Your task to perform on an android device: Show me popular games on the Play Store Image 0: 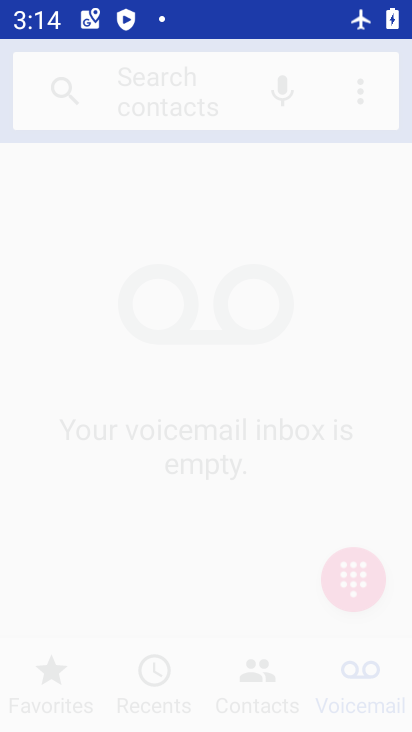
Step 0: drag from (257, 567) to (274, 227)
Your task to perform on an android device: Show me popular games on the Play Store Image 1: 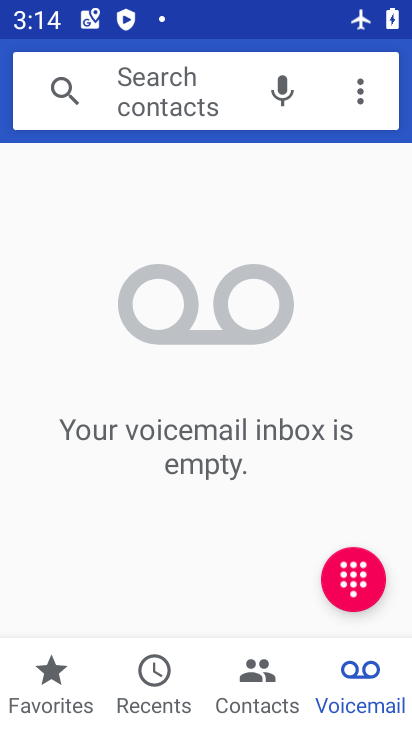
Step 1: press home button
Your task to perform on an android device: Show me popular games on the Play Store Image 2: 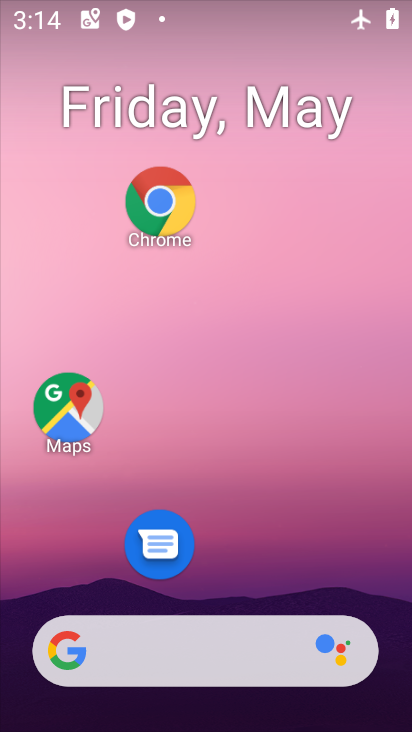
Step 2: drag from (279, 587) to (263, 204)
Your task to perform on an android device: Show me popular games on the Play Store Image 3: 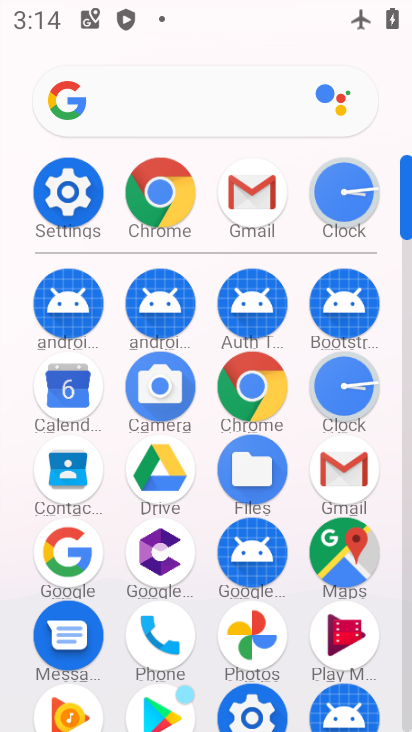
Step 3: drag from (202, 329) to (217, 162)
Your task to perform on an android device: Show me popular games on the Play Store Image 4: 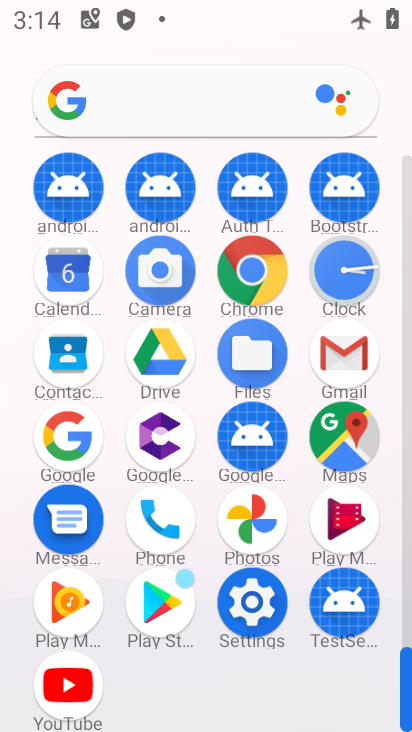
Step 4: click (157, 607)
Your task to perform on an android device: Show me popular games on the Play Store Image 5: 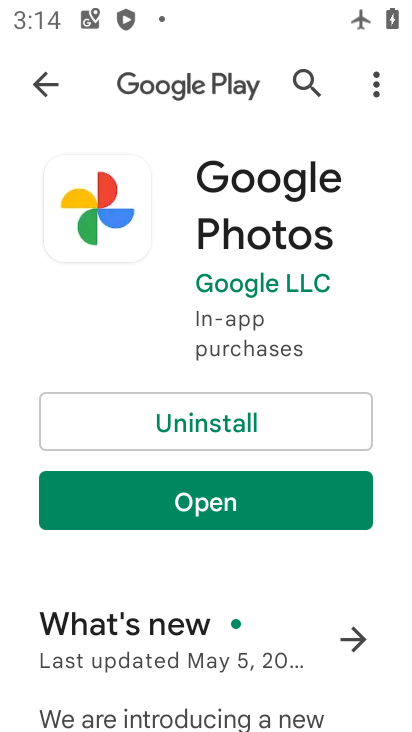
Step 5: click (232, 516)
Your task to perform on an android device: Show me popular games on the Play Store Image 6: 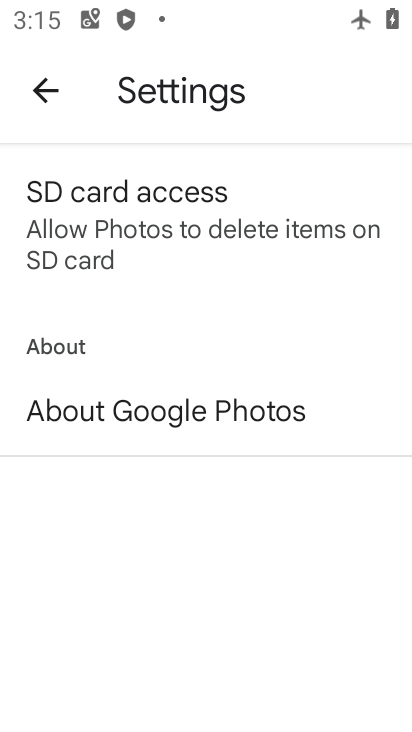
Step 6: click (57, 95)
Your task to perform on an android device: Show me popular games on the Play Store Image 7: 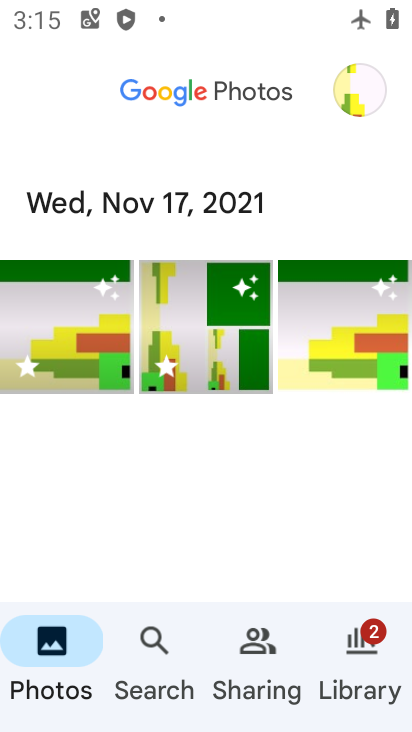
Step 7: press home button
Your task to perform on an android device: Show me popular games on the Play Store Image 8: 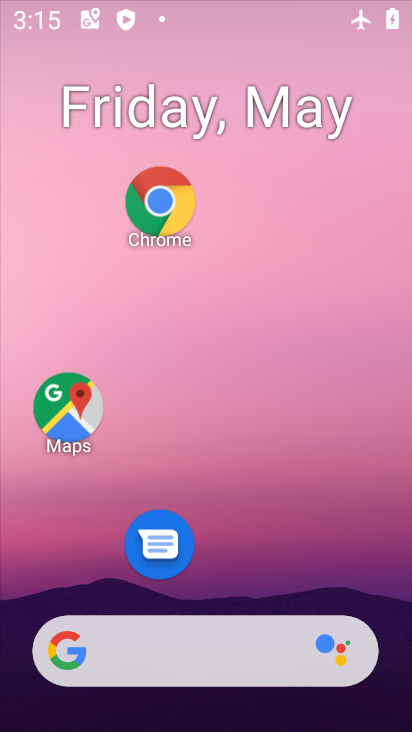
Step 8: drag from (282, 487) to (236, 137)
Your task to perform on an android device: Show me popular games on the Play Store Image 9: 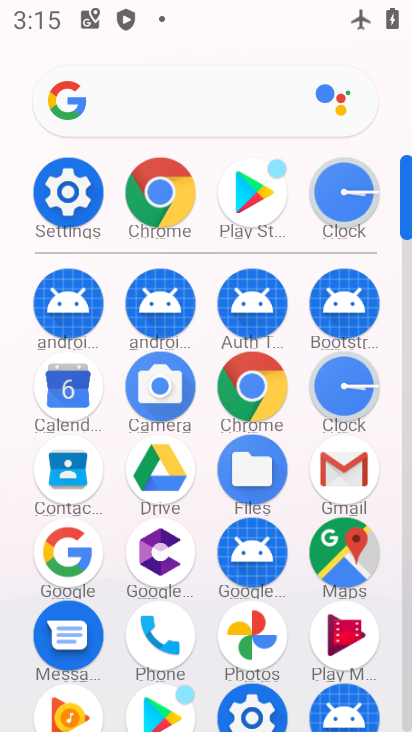
Step 9: click (258, 211)
Your task to perform on an android device: Show me popular games on the Play Store Image 10: 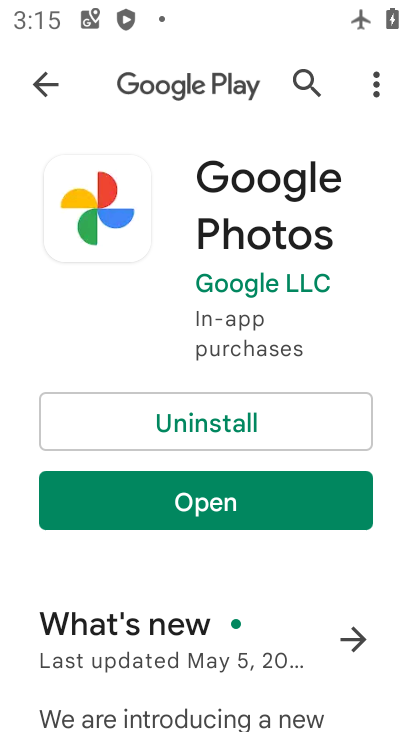
Step 10: click (63, 94)
Your task to perform on an android device: Show me popular games on the Play Store Image 11: 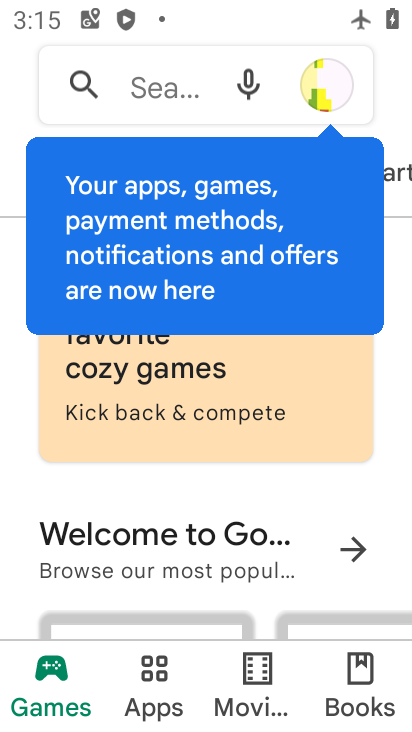
Step 11: task complete